Your task to perform on an android device: add a contact in the contacts app Image 0: 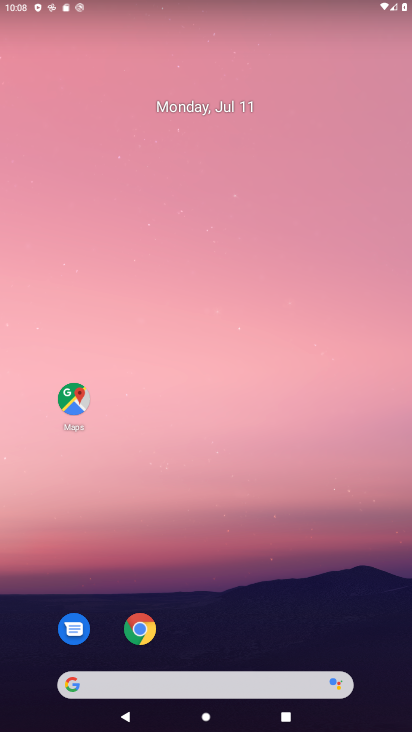
Step 0: drag from (311, 625) to (328, 299)
Your task to perform on an android device: add a contact in the contacts app Image 1: 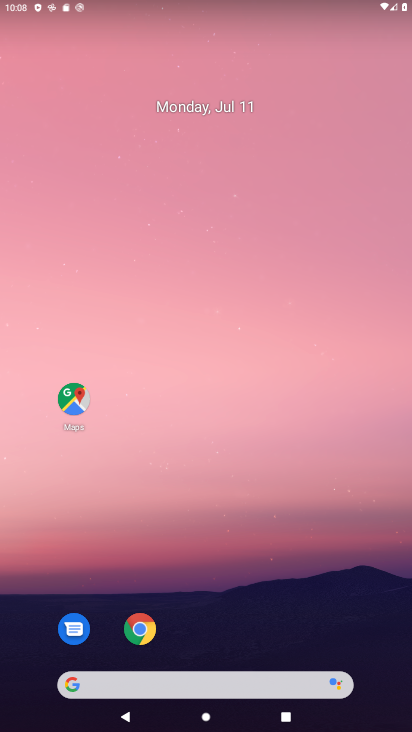
Step 1: drag from (235, 635) to (123, 80)
Your task to perform on an android device: add a contact in the contacts app Image 2: 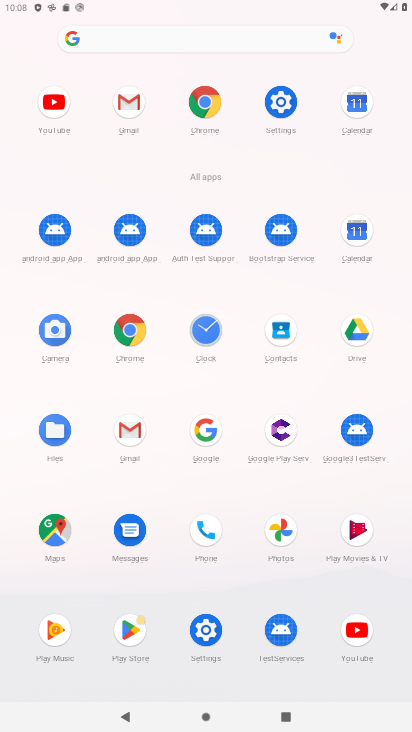
Step 2: click (260, 335)
Your task to perform on an android device: add a contact in the contacts app Image 3: 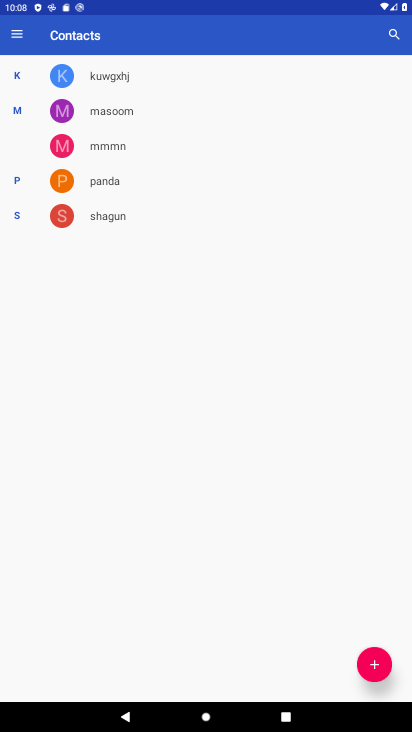
Step 3: click (360, 662)
Your task to perform on an android device: add a contact in the contacts app Image 4: 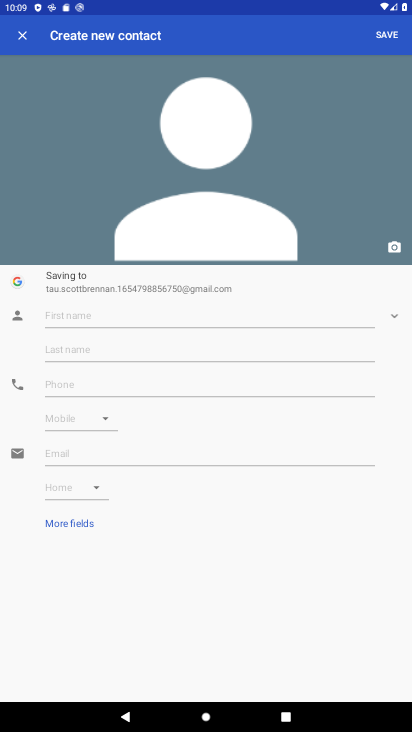
Step 4: click (181, 319)
Your task to perform on an android device: add a contact in the contacts app Image 5: 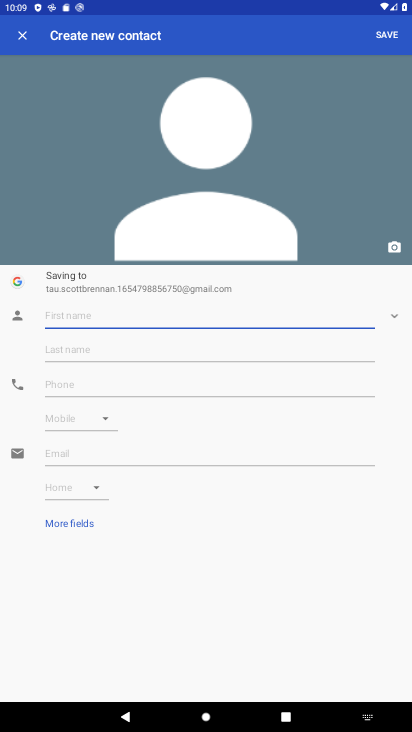
Step 5: type "jjj"
Your task to perform on an android device: add a contact in the contacts app Image 6: 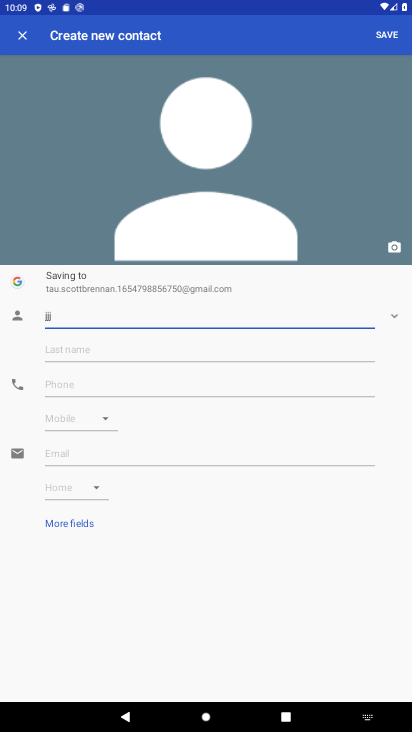
Step 6: click (310, 343)
Your task to perform on an android device: add a contact in the contacts app Image 7: 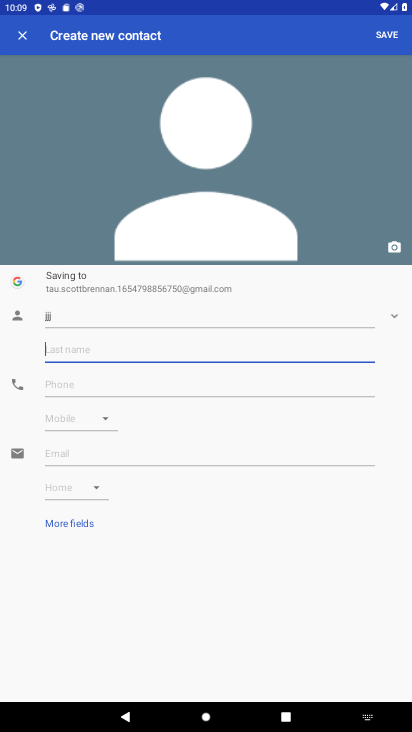
Step 7: type "n n"
Your task to perform on an android device: add a contact in the contacts app Image 8: 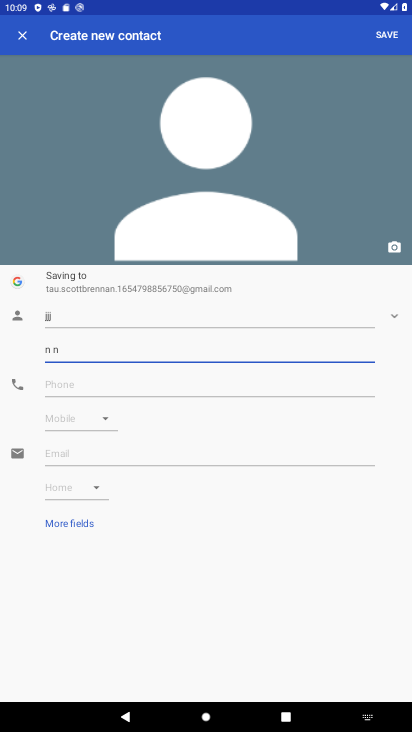
Step 8: click (262, 382)
Your task to perform on an android device: add a contact in the contacts app Image 9: 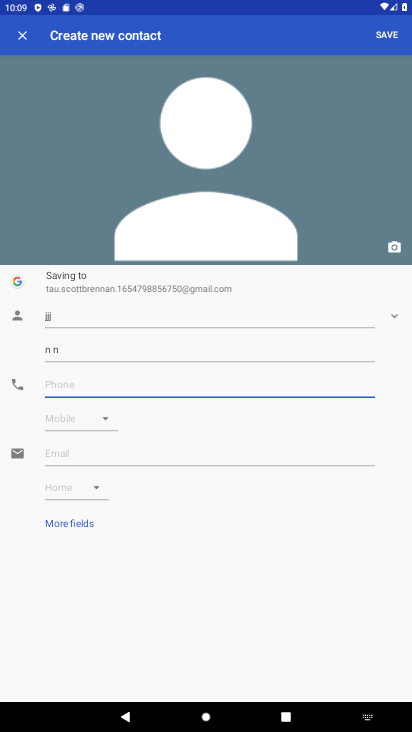
Step 9: type "88767868574"
Your task to perform on an android device: add a contact in the contacts app Image 10: 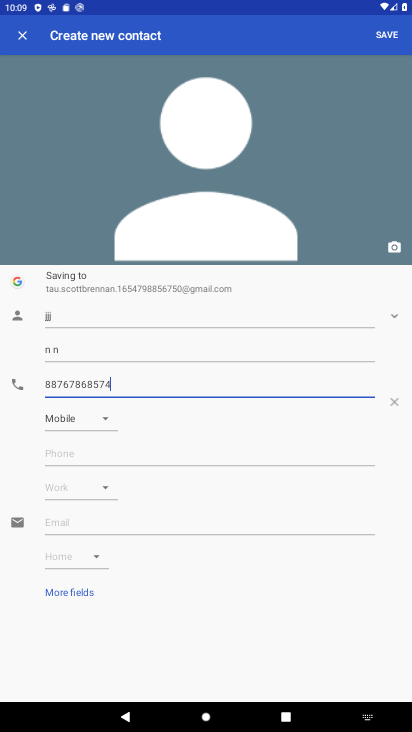
Step 10: click (404, 33)
Your task to perform on an android device: add a contact in the contacts app Image 11: 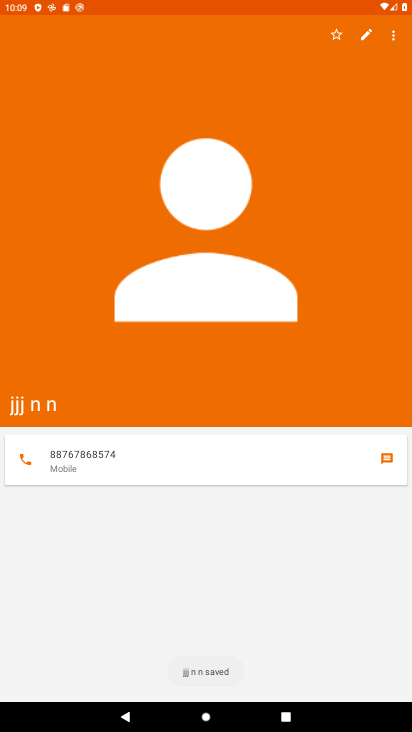
Step 11: task complete